Your task to perform on an android device: turn on showing notifications on the lock screen Image 0: 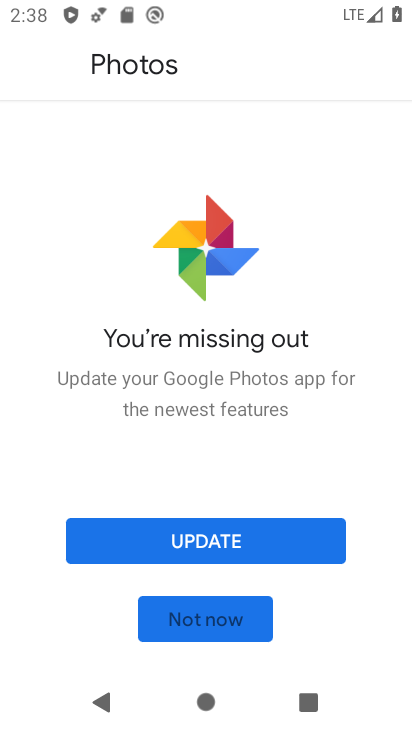
Step 0: press home button
Your task to perform on an android device: turn on showing notifications on the lock screen Image 1: 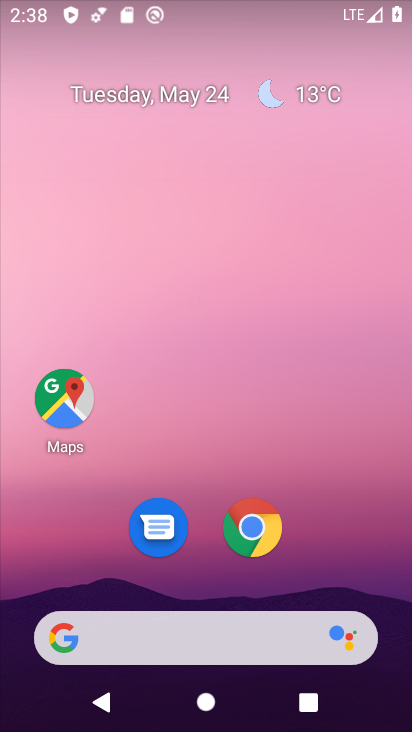
Step 1: drag from (198, 577) to (200, 0)
Your task to perform on an android device: turn on showing notifications on the lock screen Image 2: 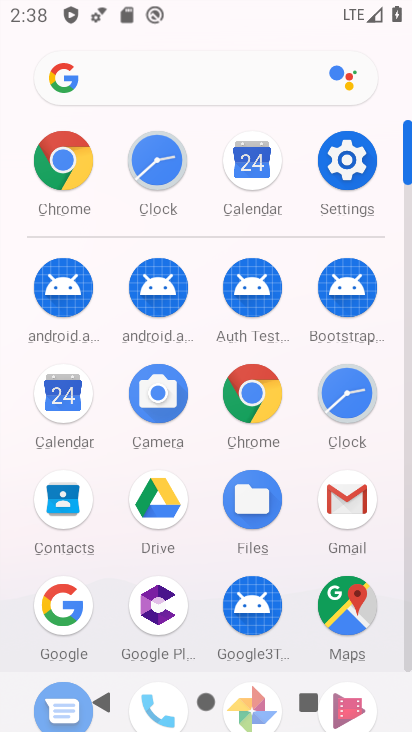
Step 2: click (350, 190)
Your task to perform on an android device: turn on showing notifications on the lock screen Image 3: 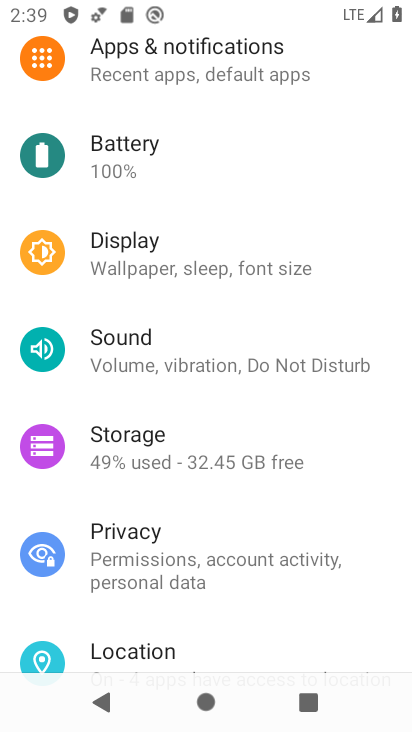
Step 3: click (191, 69)
Your task to perform on an android device: turn on showing notifications on the lock screen Image 4: 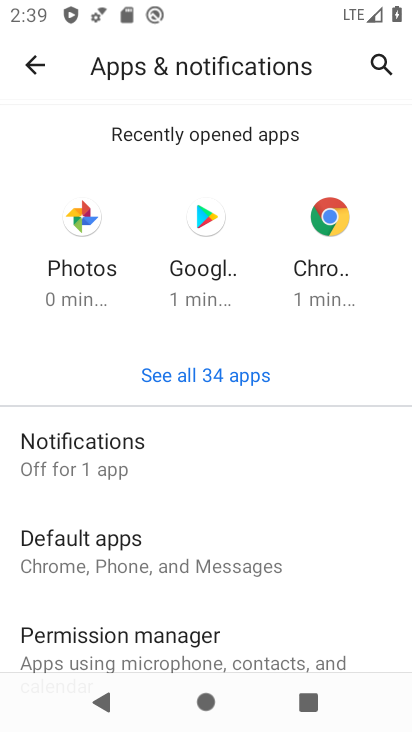
Step 4: click (151, 462)
Your task to perform on an android device: turn on showing notifications on the lock screen Image 5: 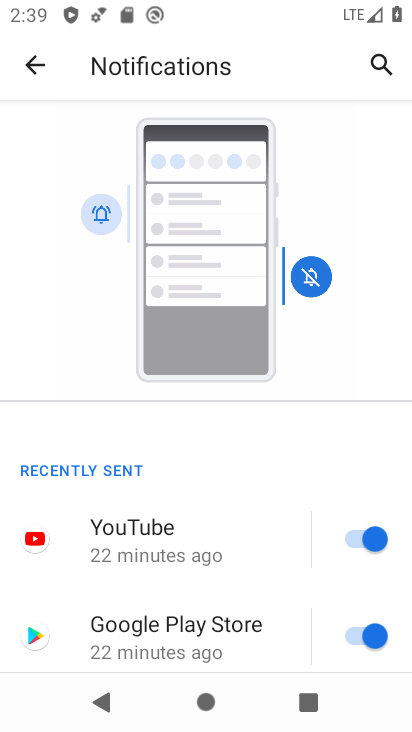
Step 5: drag from (96, 343) to (126, 207)
Your task to perform on an android device: turn on showing notifications on the lock screen Image 6: 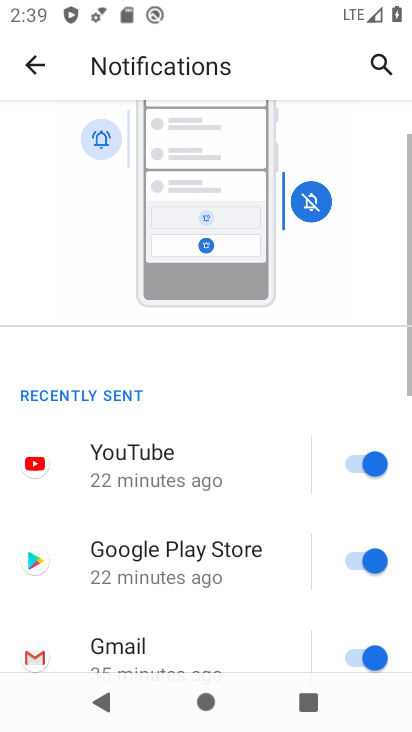
Step 6: drag from (176, 514) to (228, 245)
Your task to perform on an android device: turn on showing notifications on the lock screen Image 7: 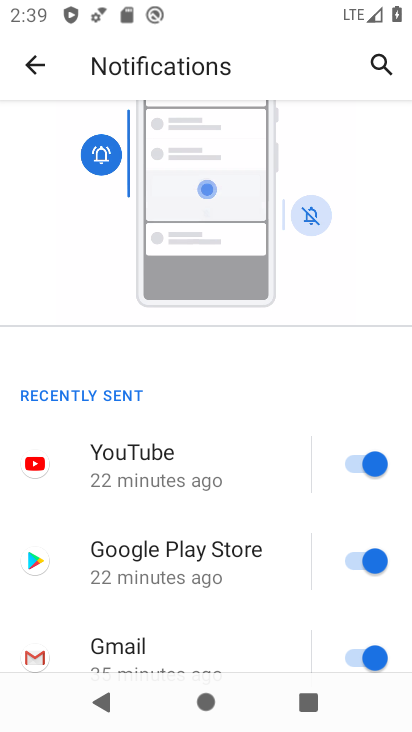
Step 7: drag from (172, 600) to (177, 192)
Your task to perform on an android device: turn on showing notifications on the lock screen Image 8: 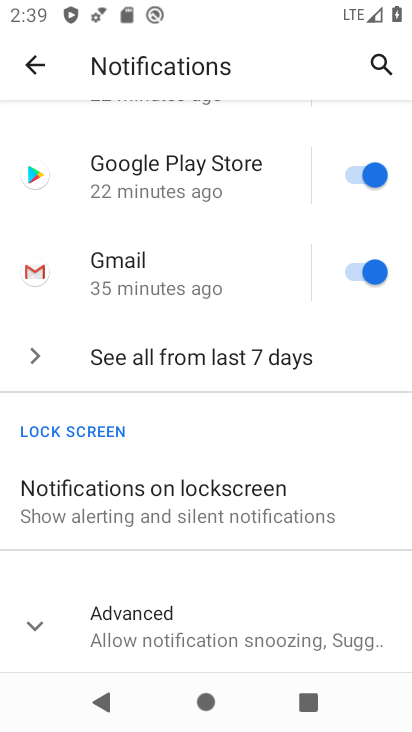
Step 8: click (202, 518)
Your task to perform on an android device: turn on showing notifications on the lock screen Image 9: 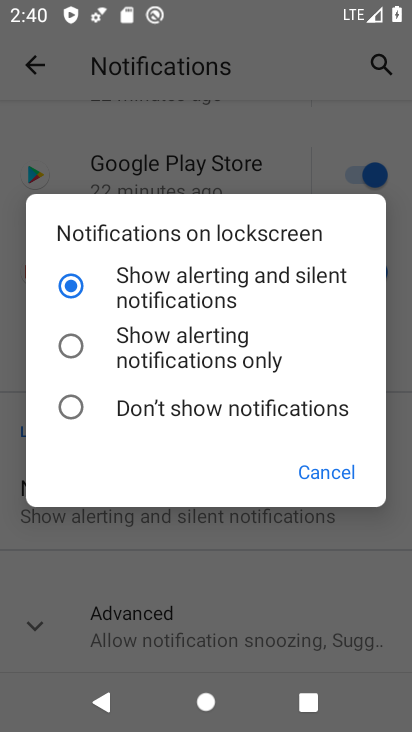
Step 9: click (135, 285)
Your task to perform on an android device: turn on showing notifications on the lock screen Image 10: 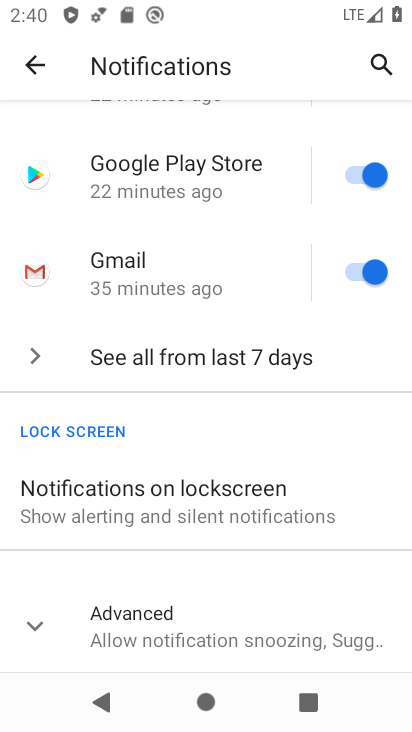
Step 10: task complete